Your task to perform on an android device: star an email in the gmail app Image 0: 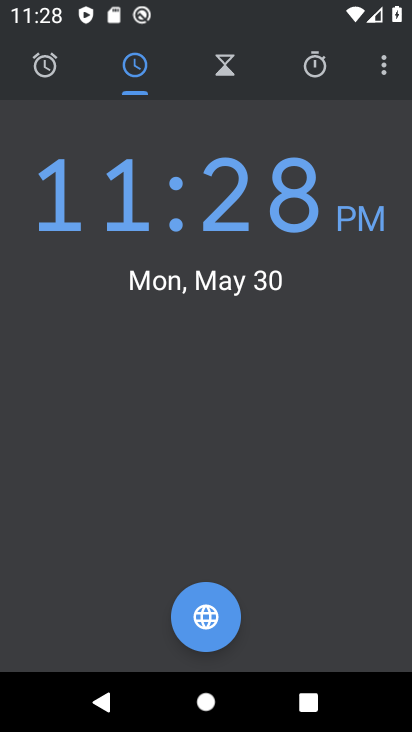
Step 0: press home button
Your task to perform on an android device: star an email in the gmail app Image 1: 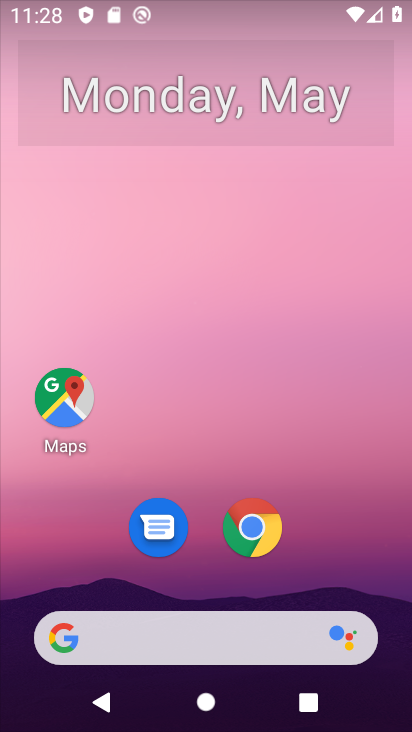
Step 1: drag from (300, 554) to (287, 132)
Your task to perform on an android device: star an email in the gmail app Image 2: 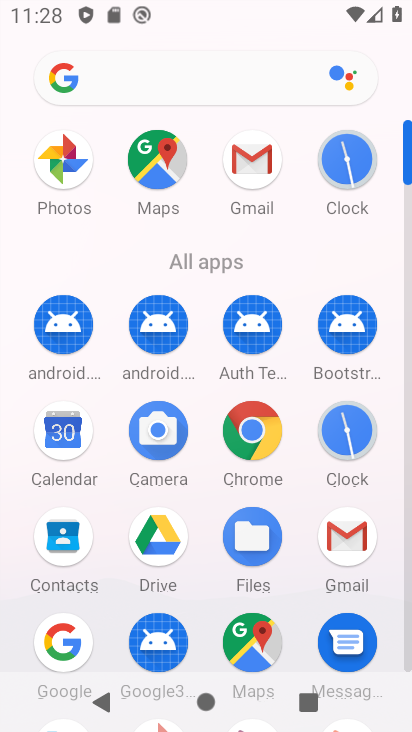
Step 2: click (332, 559)
Your task to perform on an android device: star an email in the gmail app Image 3: 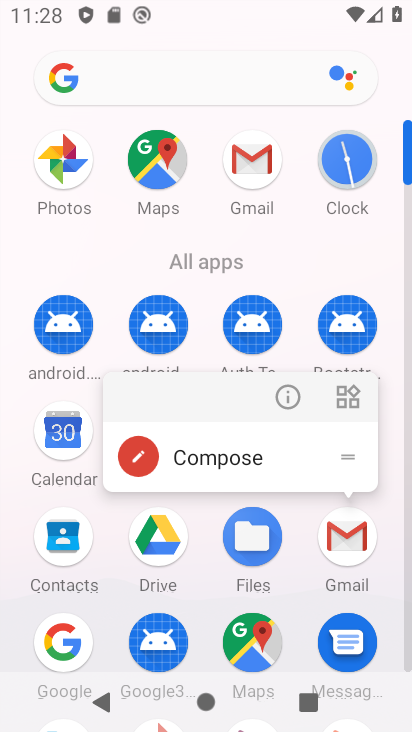
Step 3: click (336, 558)
Your task to perform on an android device: star an email in the gmail app Image 4: 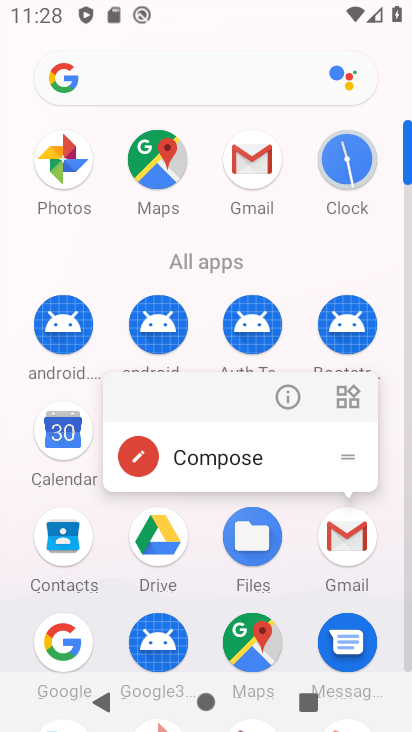
Step 4: click (336, 558)
Your task to perform on an android device: star an email in the gmail app Image 5: 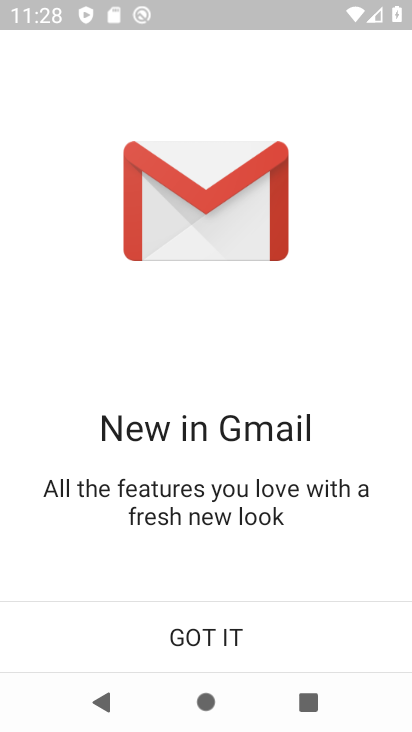
Step 5: click (214, 664)
Your task to perform on an android device: star an email in the gmail app Image 6: 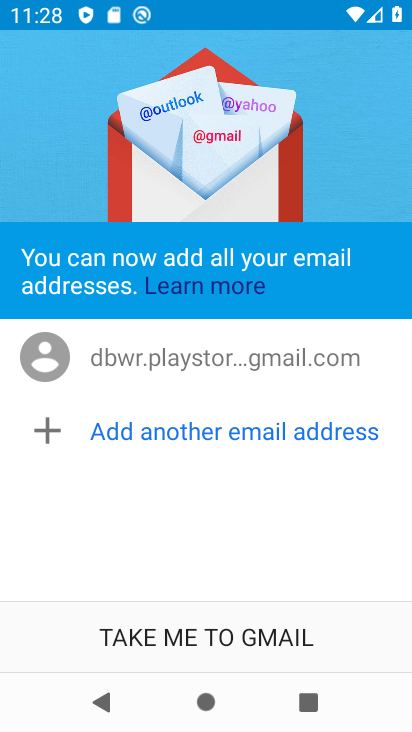
Step 6: click (208, 639)
Your task to perform on an android device: star an email in the gmail app Image 7: 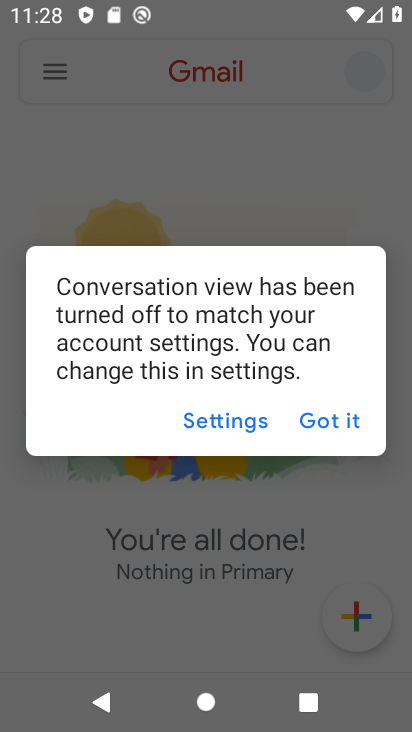
Step 7: click (314, 413)
Your task to perform on an android device: star an email in the gmail app Image 8: 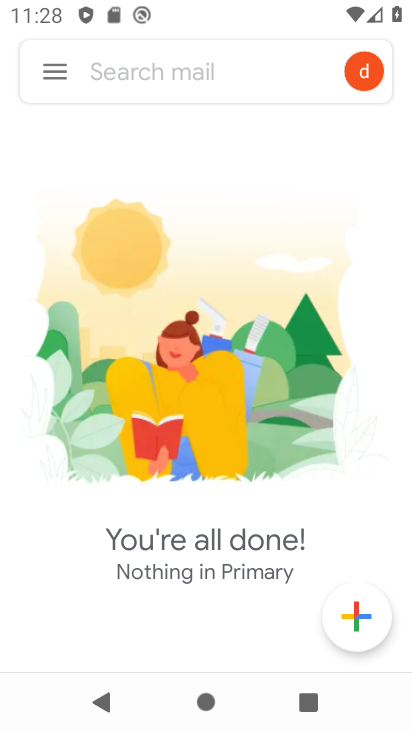
Step 8: click (48, 73)
Your task to perform on an android device: star an email in the gmail app Image 9: 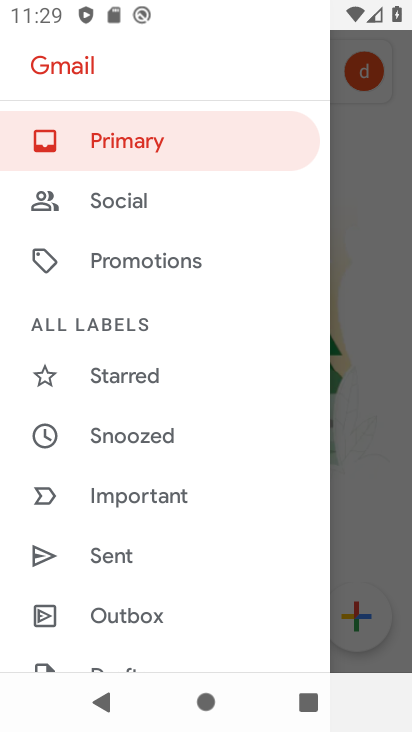
Step 9: drag from (172, 633) to (187, 317)
Your task to perform on an android device: star an email in the gmail app Image 10: 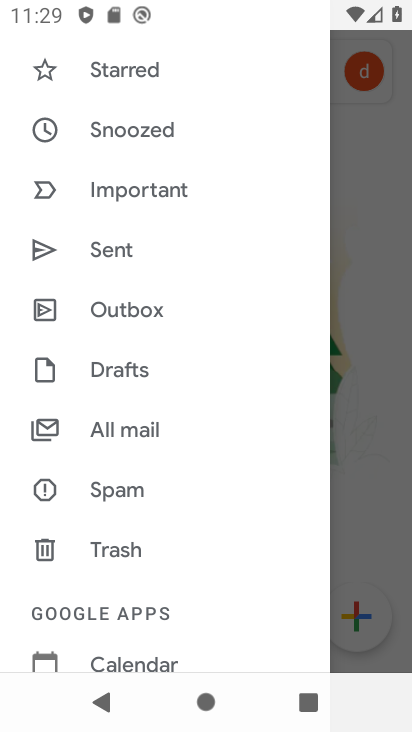
Step 10: click (146, 433)
Your task to perform on an android device: star an email in the gmail app Image 11: 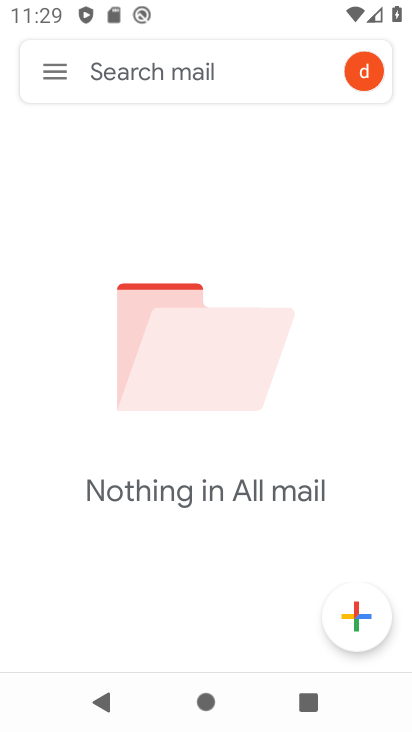
Step 11: task complete